Your task to perform on an android device: Play the last video I watched on Youtube Image 0: 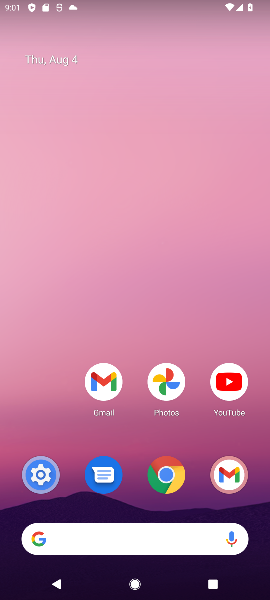
Step 0: click (124, 135)
Your task to perform on an android device: Play the last video I watched on Youtube Image 1: 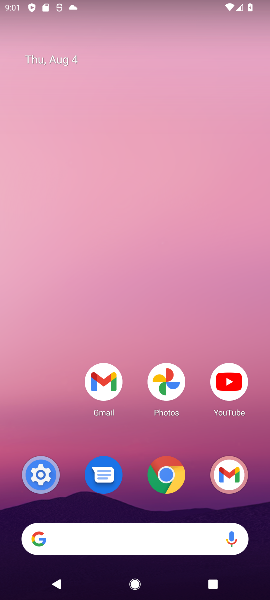
Step 1: drag from (128, 495) to (153, 181)
Your task to perform on an android device: Play the last video I watched on Youtube Image 2: 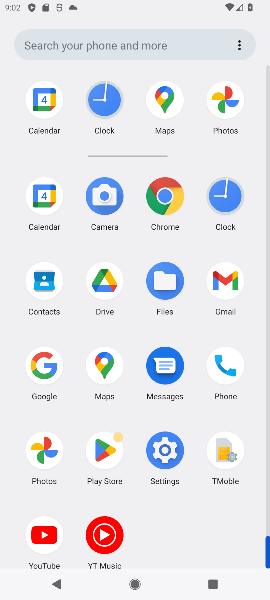
Step 2: drag from (147, 518) to (164, 125)
Your task to perform on an android device: Play the last video I watched on Youtube Image 3: 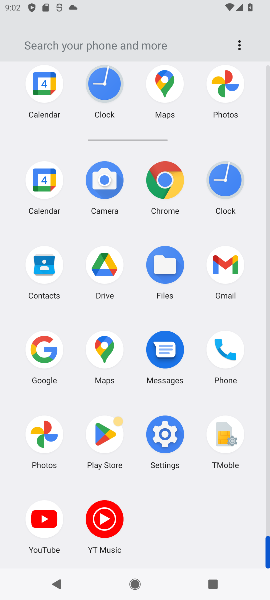
Step 3: drag from (135, 467) to (112, 183)
Your task to perform on an android device: Play the last video I watched on Youtube Image 4: 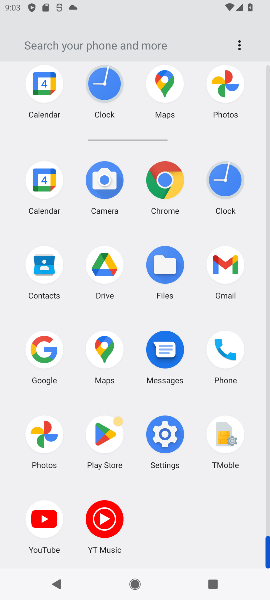
Step 4: drag from (134, 478) to (140, 197)
Your task to perform on an android device: Play the last video I watched on Youtube Image 5: 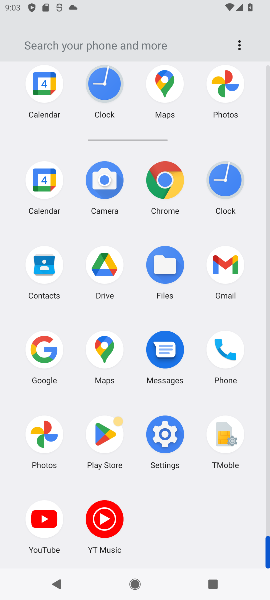
Step 5: drag from (125, 519) to (198, 157)
Your task to perform on an android device: Play the last video I watched on Youtube Image 6: 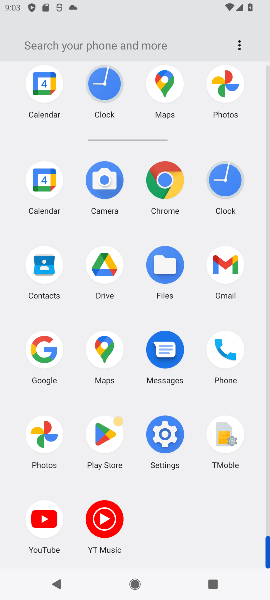
Step 6: drag from (129, 457) to (119, 146)
Your task to perform on an android device: Play the last video I watched on Youtube Image 7: 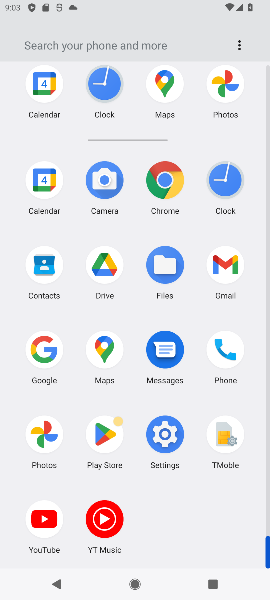
Step 7: click (41, 517)
Your task to perform on an android device: Play the last video I watched on Youtube Image 8: 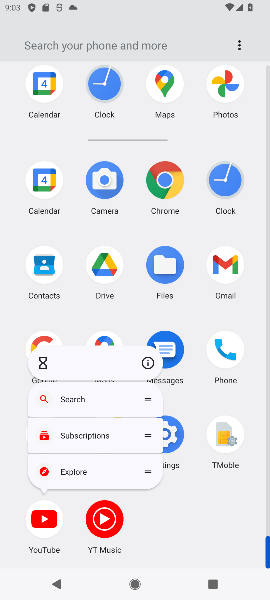
Step 8: click (145, 368)
Your task to perform on an android device: Play the last video I watched on Youtube Image 9: 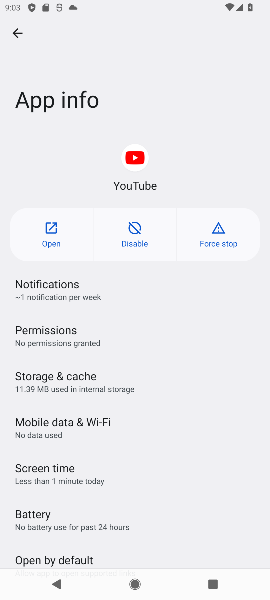
Step 9: click (56, 232)
Your task to perform on an android device: Play the last video I watched on Youtube Image 10: 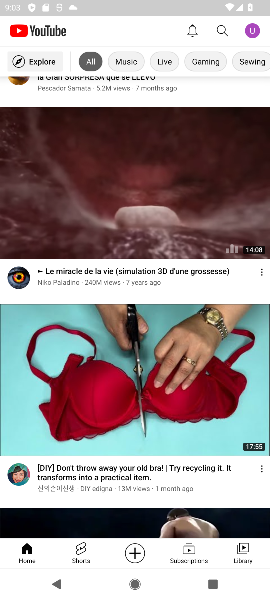
Step 10: drag from (126, 468) to (158, 191)
Your task to perform on an android device: Play the last video I watched on Youtube Image 11: 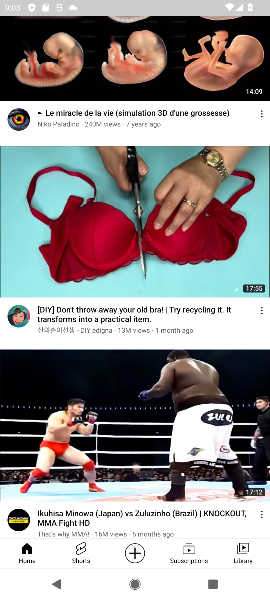
Step 11: click (243, 546)
Your task to perform on an android device: Play the last video I watched on Youtube Image 12: 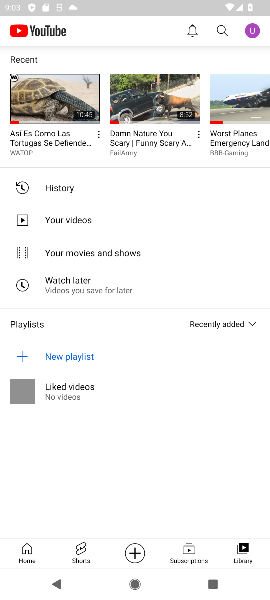
Step 12: click (58, 115)
Your task to perform on an android device: Play the last video I watched on Youtube Image 13: 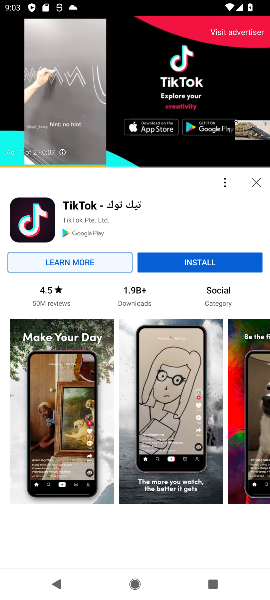
Step 13: click (258, 185)
Your task to perform on an android device: Play the last video I watched on Youtube Image 14: 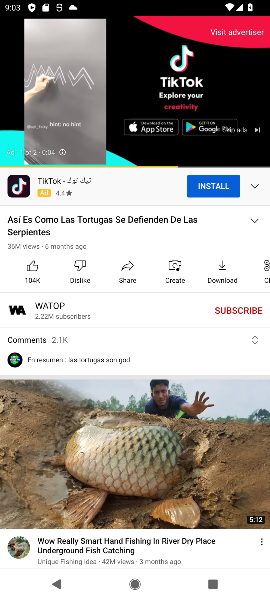
Step 14: drag from (145, 333) to (141, 218)
Your task to perform on an android device: Play the last video I watched on Youtube Image 15: 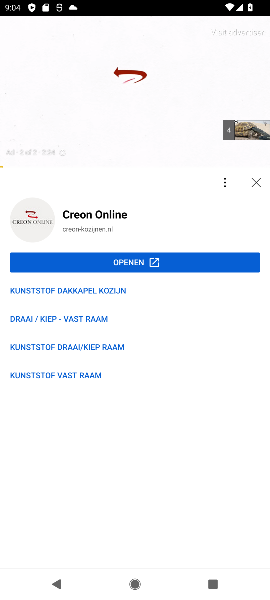
Step 15: drag from (122, 267) to (195, 479)
Your task to perform on an android device: Play the last video I watched on Youtube Image 16: 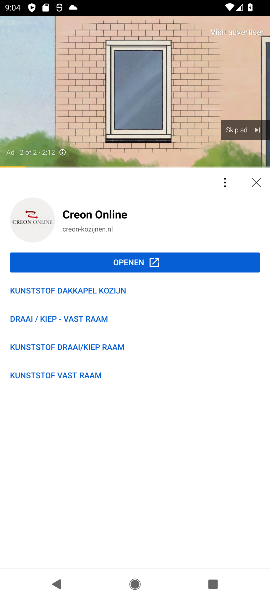
Step 16: click (256, 184)
Your task to perform on an android device: Play the last video I watched on Youtube Image 17: 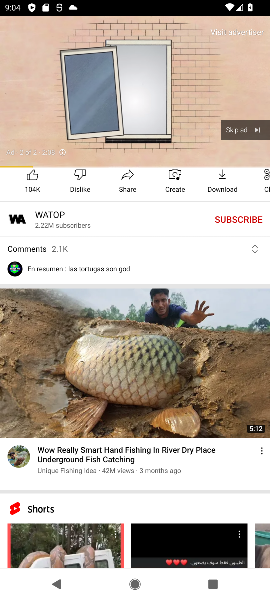
Step 17: click (236, 136)
Your task to perform on an android device: Play the last video I watched on Youtube Image 18: 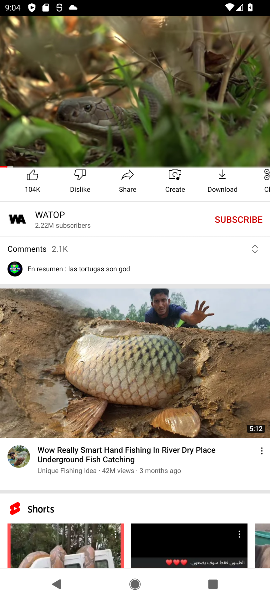
Step 18: task complete